Your task to perform on an android device: Find coffee shops on Maps Image 0: 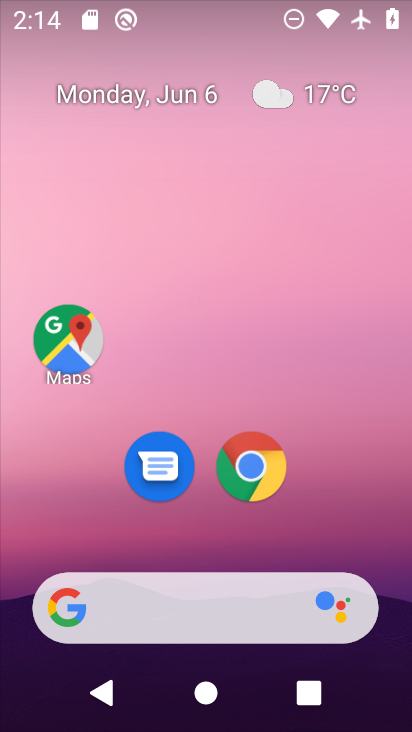
Step 0: click (73, 330)
Your task to perform on an android device: Find coffee shops on Maps Image 1: 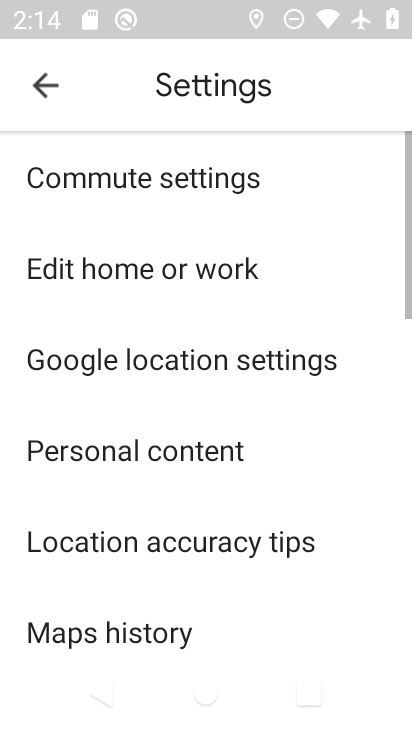
Step 1: click (45, 92)
Your task to perform on an android device: Find coffee shops on Maps Image 2: 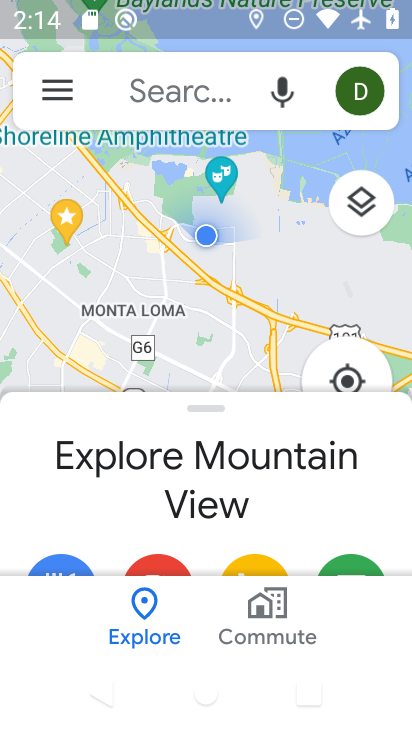
Step 2: click (177, 98)
Your task to perform on an android device: Find coffee shops on Maps Image 3: 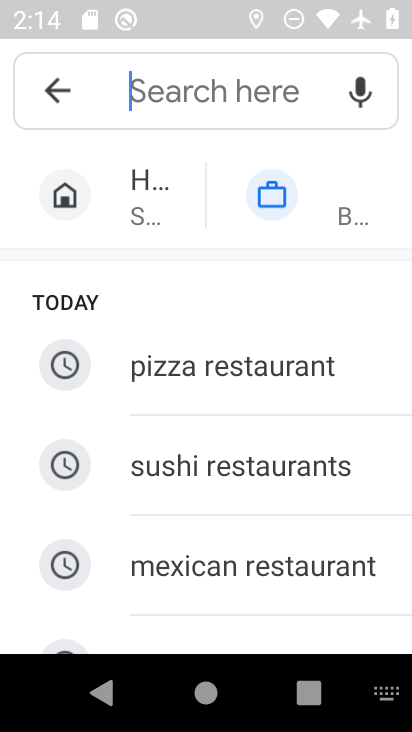
Step 3: type "coffee shops"
Your task to perform on an android device: Find coffee shops on Maps Image 4: 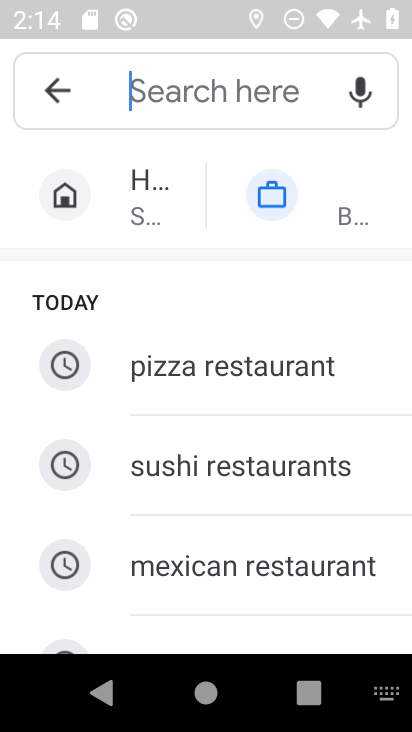
Step 4: click (196, 93)
Your task to perform on an android device: Find coffee shops on Maps Image 5: 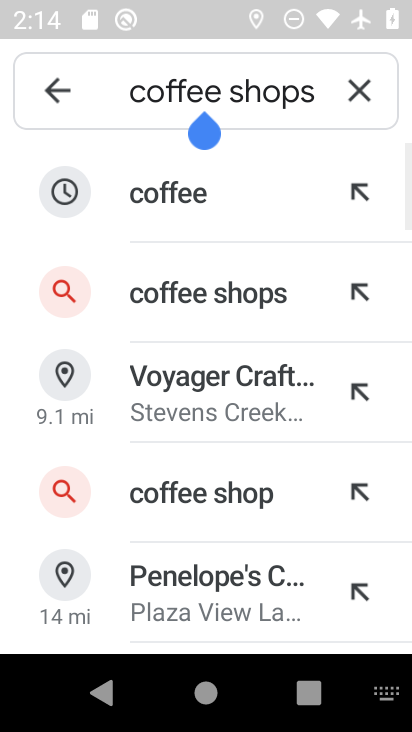
Step 5: click (209, 303)
Your task to perform on an android device: Find coffee shops on Maps Image 6: 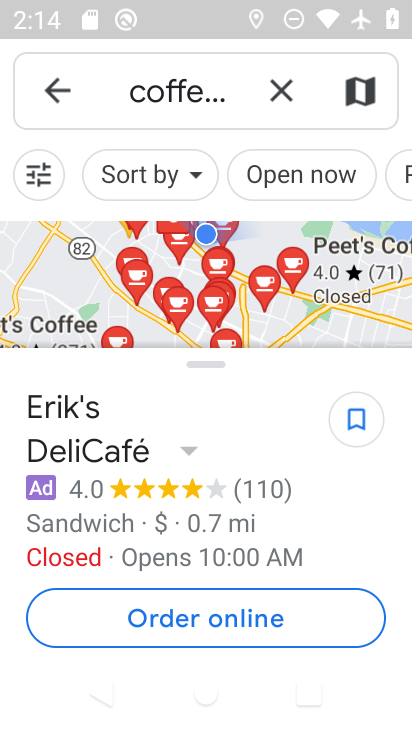
Step 6: task complete